Your task to perform on an android device: turn on improve location accuracy Image 0: 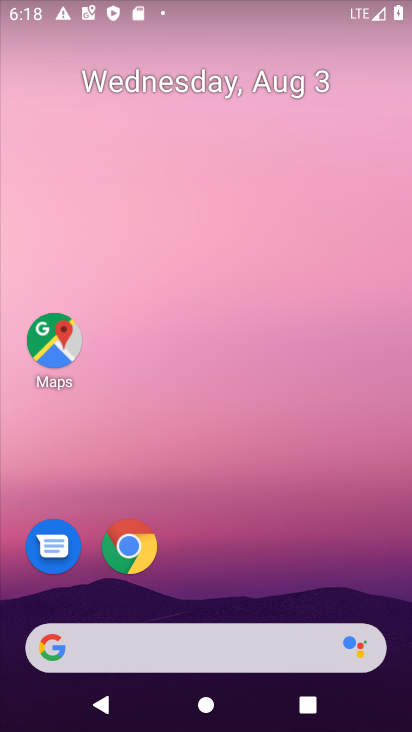
Step 0: drag from (275, 611) to (392, 169)
Your task to perform on an android device: turn on improve location accuracy Image 1: 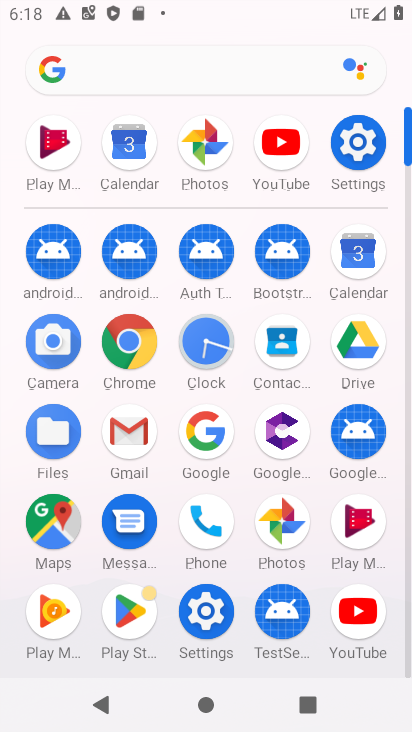
Step 1: click (375, 154)
Your task to perform on an android device: turn on improve location accuracy Image 2: 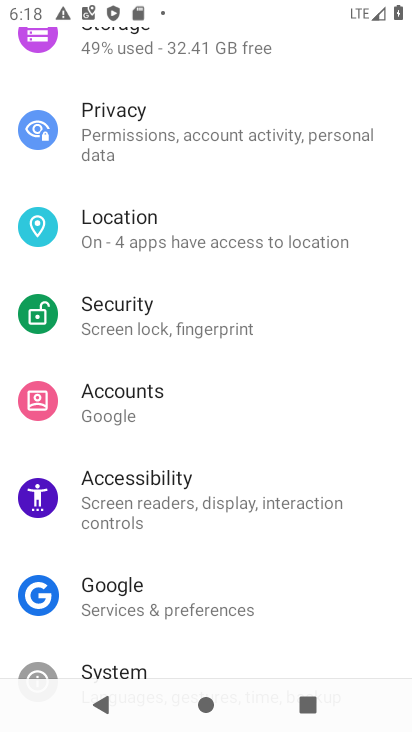
Step 2: click (151, 237)
Your task to perform on an android device: turn on improve location accuracy Image 3: 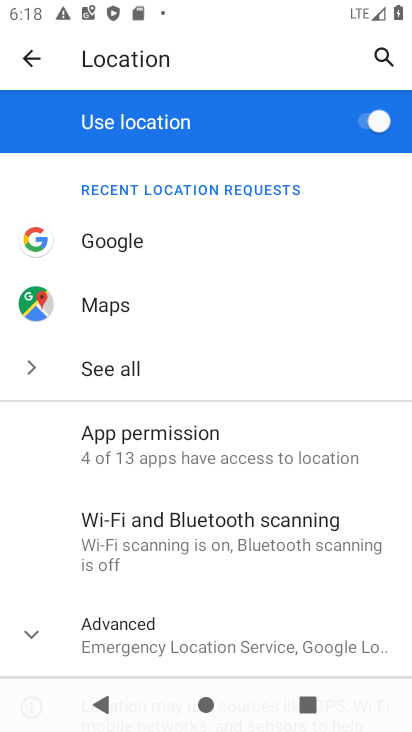
Step 3: drag from (264, 605) to (332, 256)
Your task to perform on an android device: turn on improve location accuracy Image 4: 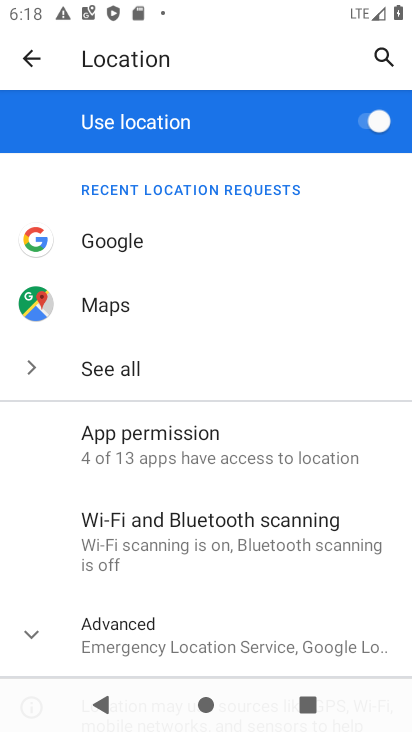
Step 4: click (223, 643)
Your task to perform on an android device: turn on improve location accuracy Image 5: 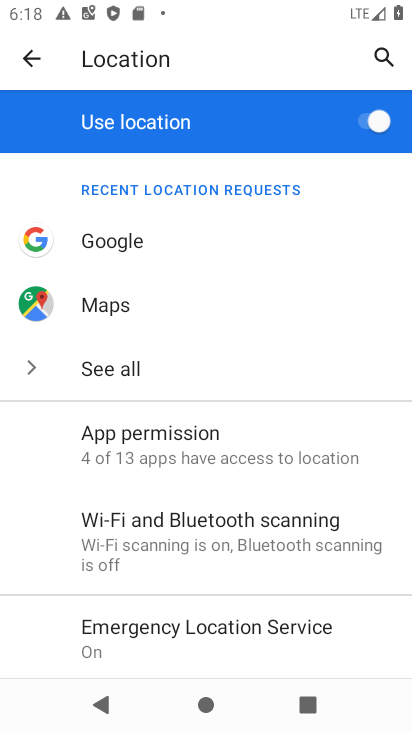
Step 5: drag from (372, 636) to (399, 0)
Your task to perform on an android device: turn on improve location accuracy Image 6: 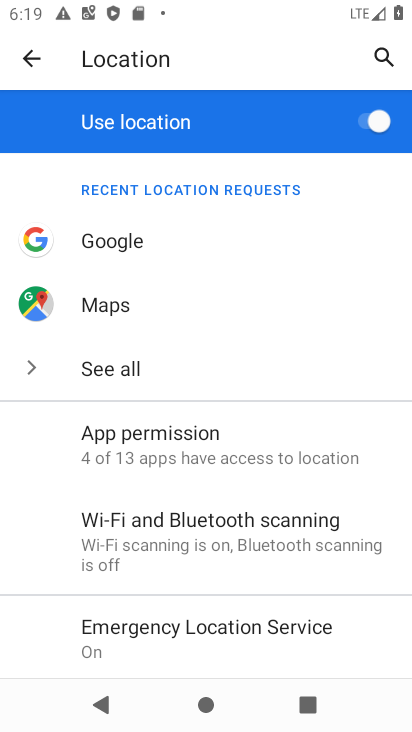
Step 6: drag from (376, 570) to (399, 58)
Your task to perform on an android device: turn on improve location accuracy Image 7: 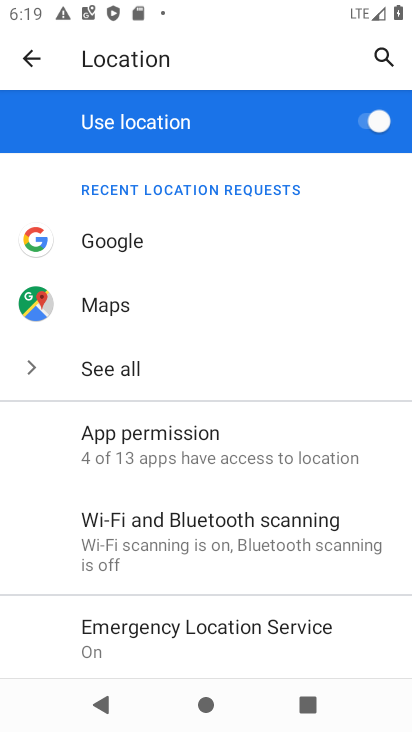
Step 7: drag from (233, 575) to (302, 86)
Your task to perform on an android device: turn on improve location accuracy Image 8: 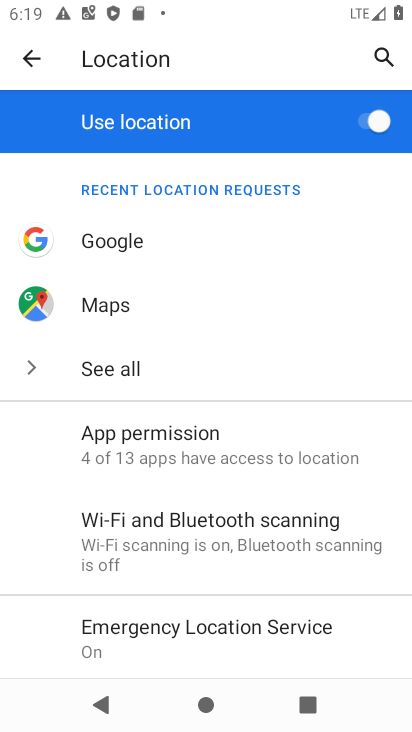
Step 8: drag from (293, 648) to (238, 11)
Your task to perform on an android device: turn on improve location accuracy Image 9: 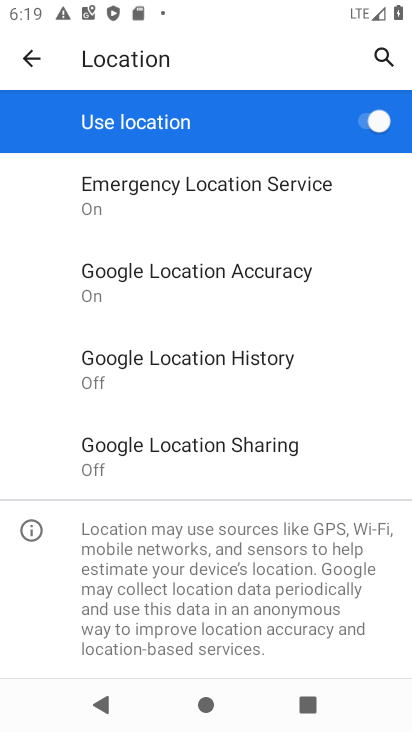
Step 9: click (246, 281)
Your task to perform on an android device: turn on improve location accuracy Image 10: 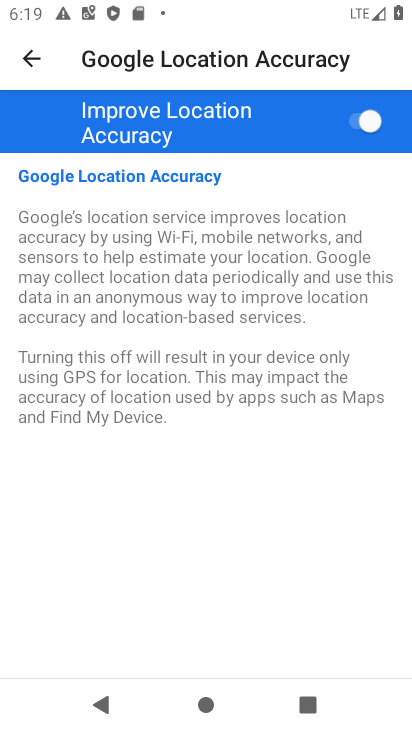
Step 10: task complete